Your task to perform on an android device: Show me productivity apps on the Play Store Image 0: 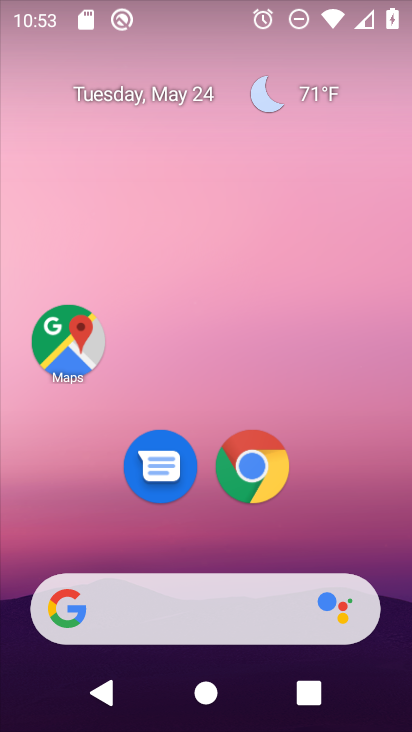
Step 0: drag from (195, 554) to (321, 91)
Your task to perform on an android device: Show me productivity apps on the Play Store Image 1: 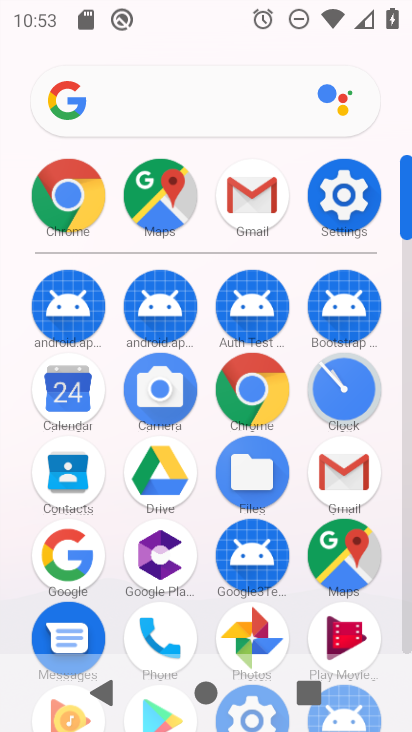
Step 1: drag from (191, 538) to (237, 260)
Your task to perform on an android device: Show me productivity apps on the Play Store Image 2: 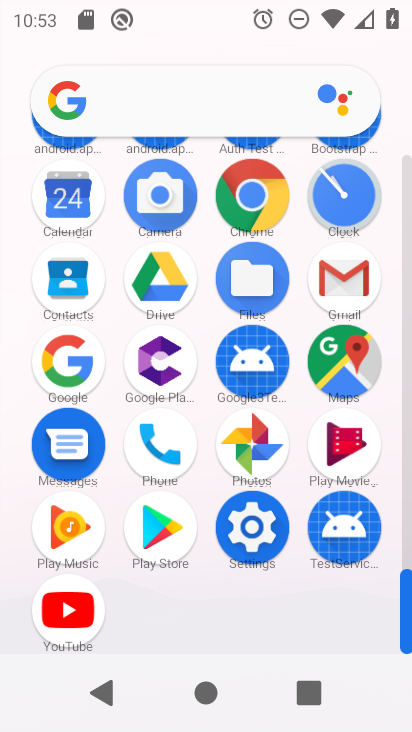
Step 2: click (183, 538)
Your task to perform on an android device: Show me productivity apps on the Play Store Image 3: 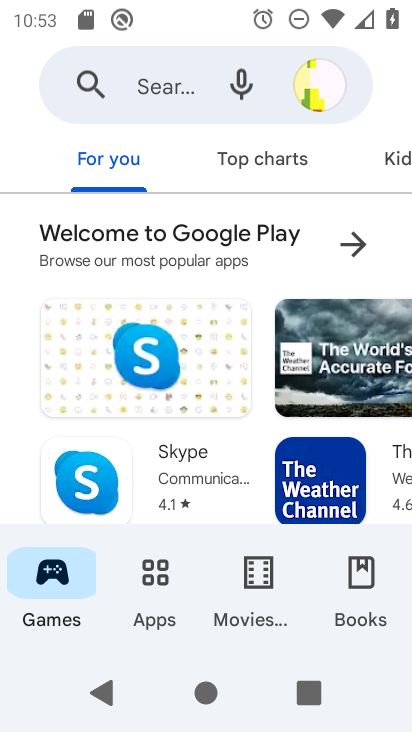
Step 3: click (162, 583)
Your task to perform on an android device: Show me productivity apps on the Play Store Image 4: 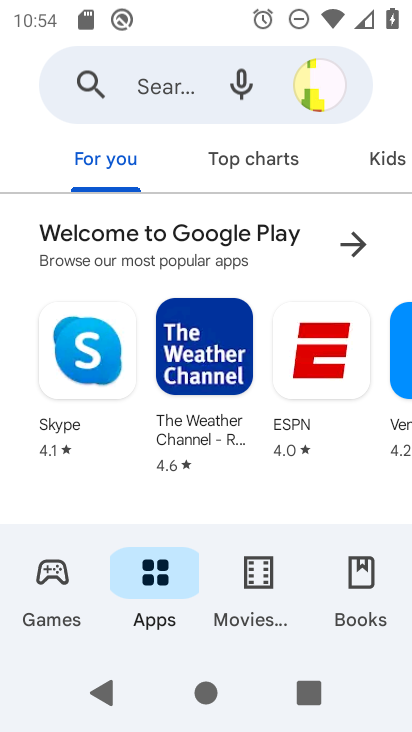
Step 4: drag from (387, 167) to (193, 116)
Your task to perform on an android device: Show me productivity apps on the Play Store Image 5: 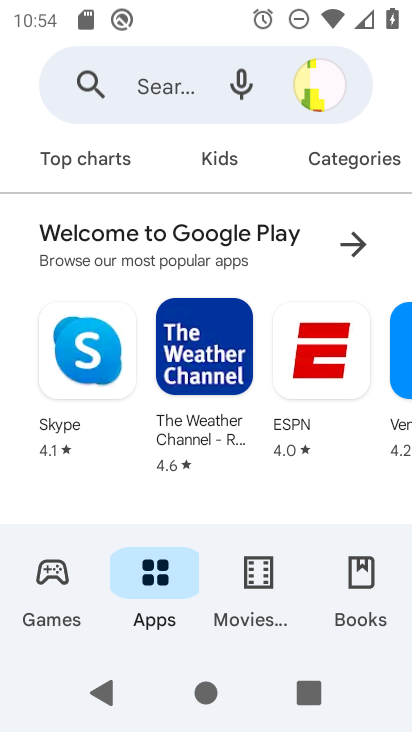
Step 5: click (382, 169)
Your task to perform on an android device: Show me productivity apps on the Play Store Image 6: 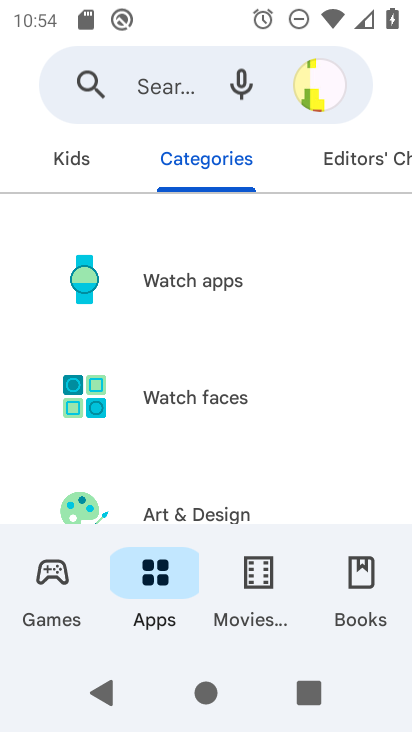
Step 6: drag from (222, 463) to (303, 103)
Your task to perform on an android device: Show me productivity apps on the Play Store Image 7: 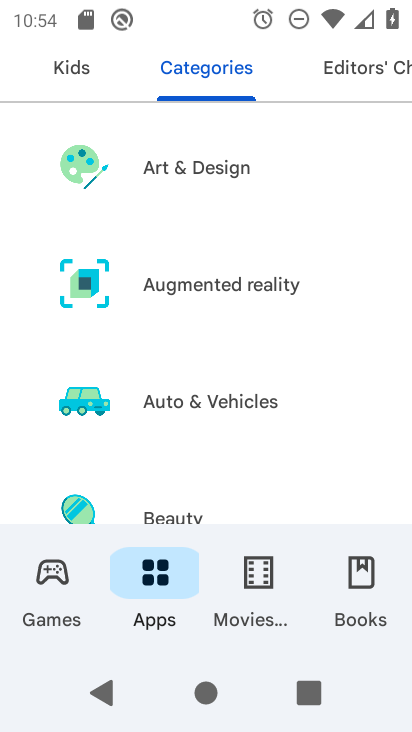
Step 7: drag from (198, 465) to (270, 172)
Your task to perform on an android device: Show me productivity apps on the Play Store Image 8: 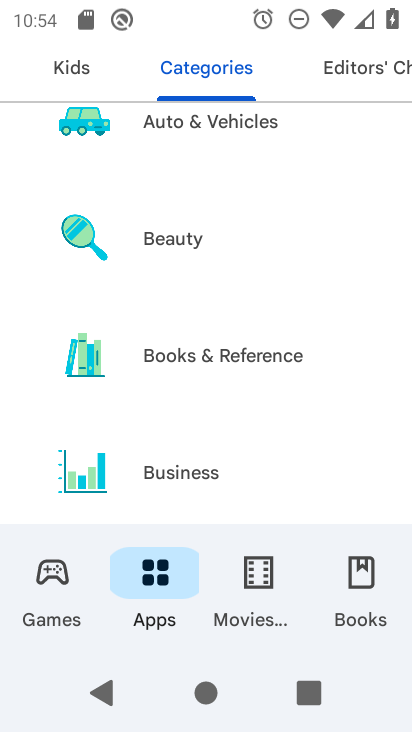
Step 8: drag from (207, 455) to (318, 153)
Your task to perform on an android device: Show me productivity apps on the Play Store Image 9: 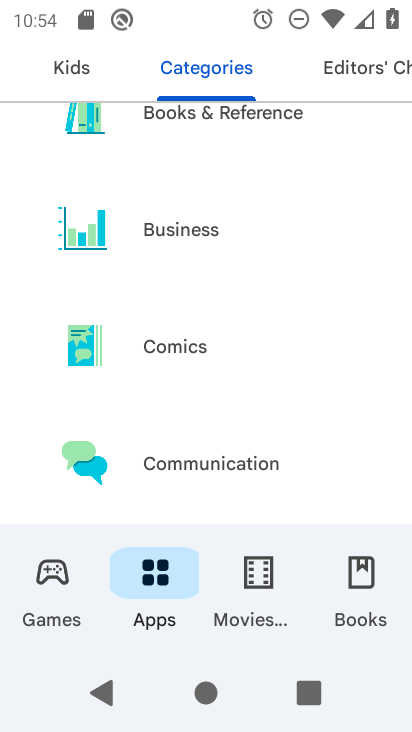
Step 9: drag from (238, 457) to (322, 141)
Your task to perform on an android device: Show me productivity apps on the Play Store Image 10: 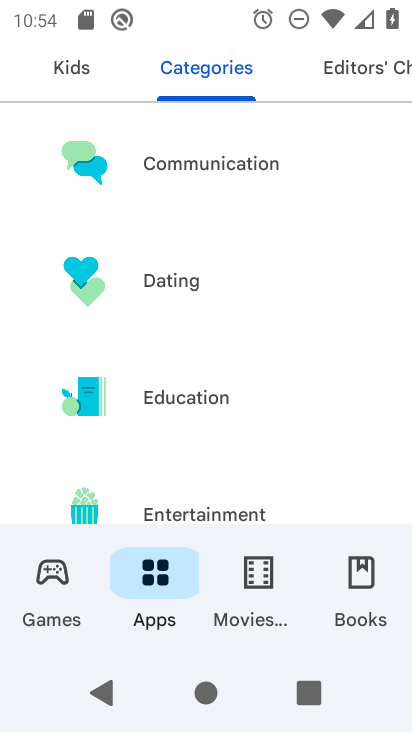
Step 10: drag from (247, 429) to (310, 133)
Your task to perform on an android device: Show me productivity apps on the Play Store Image 11: 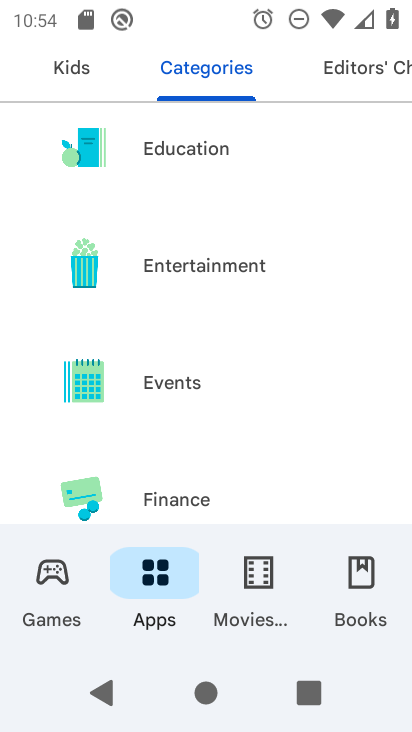
Step 11: drag from (207, 423) to (293, 129)
Your task to perform on an android device: Show me productivity apps on the Play Store Image 12: 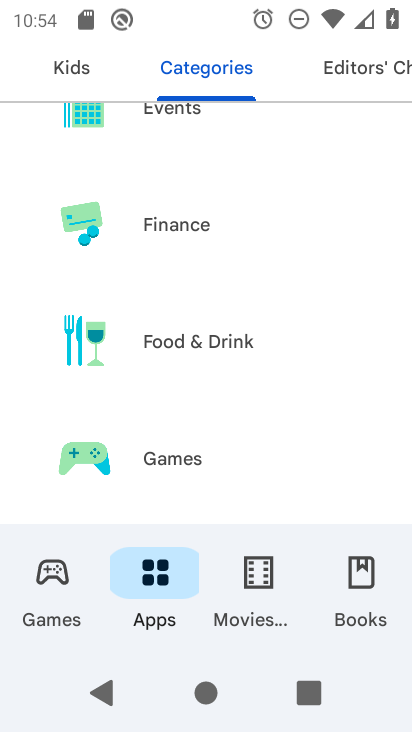
Step 12: drag from (231, 436) to (293, 211)
Your task to perform on an android device: Show me productivity apps on the Play Store Image 13: 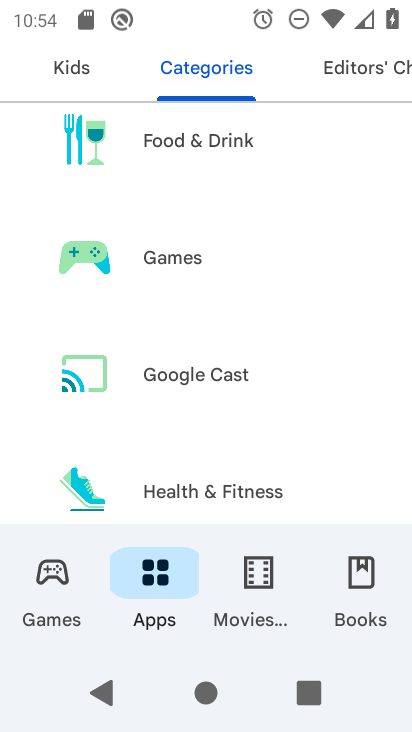
Step 13: drag from (232, 449) to (306, 182)
Your task to perform on an android device: Show me productivity apps on the Play Store Image 14: 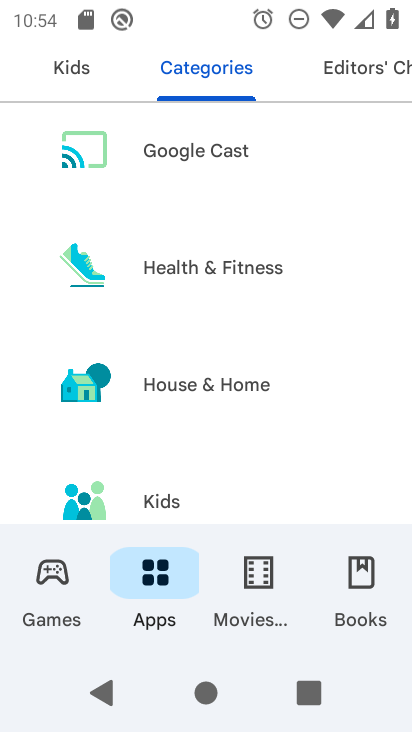
Step 14: drag from (285, 460) to (398, 127)
Your task to perform on an android device: Show me productivity apps on the Play Store Image 15: 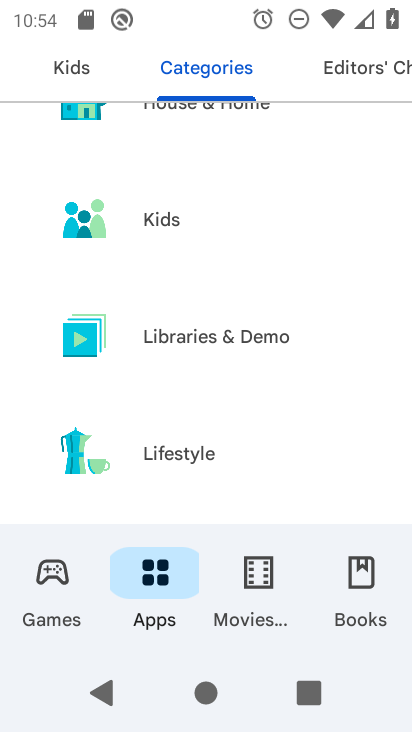
Step 15: drag from (256, 448) to (319, 68)
Your task to perform on an android device: Show me productivity apps on the Play Store Image 16: 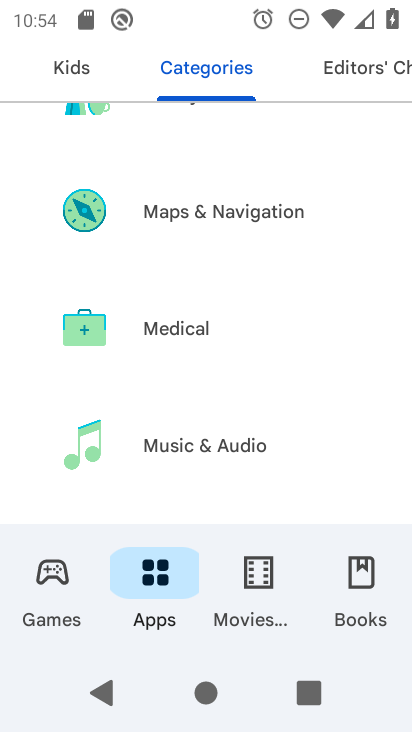
Step 16: drag from (210, 455) to (268, 123)
Your task to perform on an android device: Show me productivity apps on the Play Store Image 17: 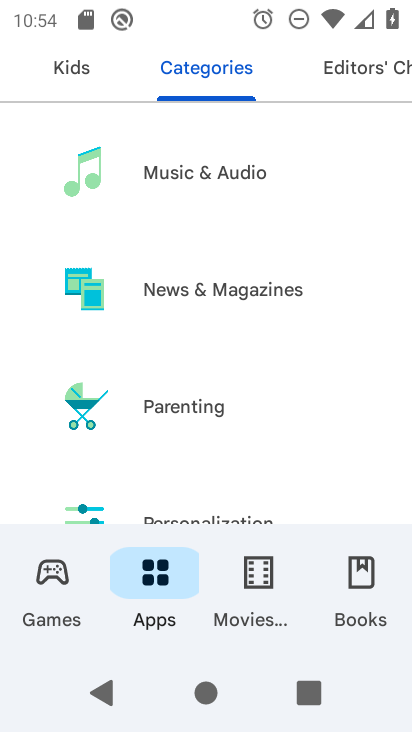
Step 17: drag from (184, 430) to (276, 151)
Your task to perform on an android device: Show me productivity apps on the Play Store Image 18: 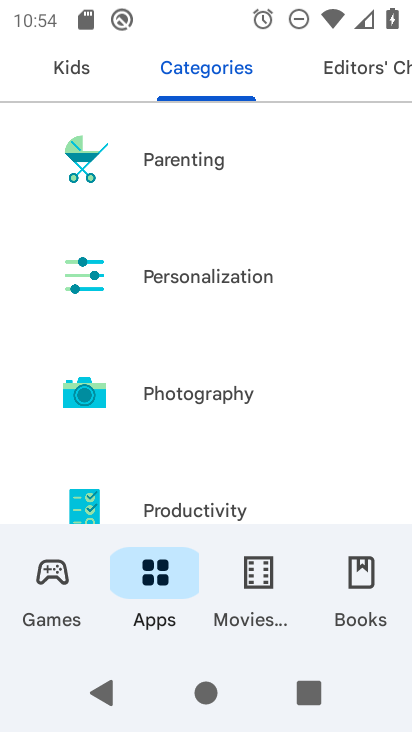
Step 18: drag from (231, 422) to (268, 281)
Your task to perform on an android device: Show me productivity apps on the Play Store Image 19: 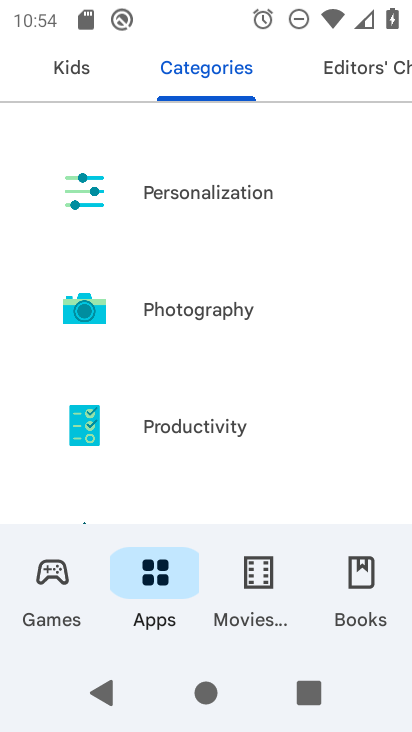
Step 19: click (233, 439)
Your task to perform on an android device: Show me productivity apps on the Play Store Image 20: 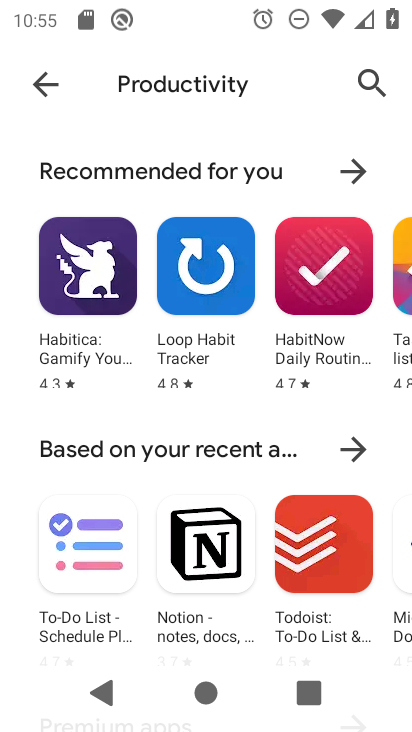
Step 20: task complete